Your task to perform on an android device: find which apps use the phone's location Image 0: 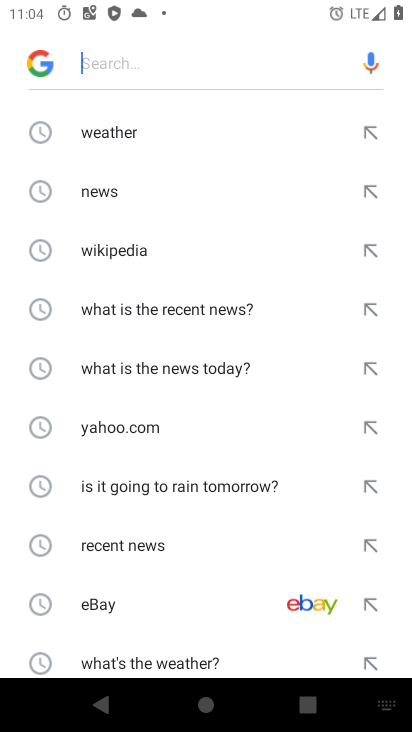
Step 0: press home button
Your task to perform on an android device: find which apps use the phone's location Image 1: 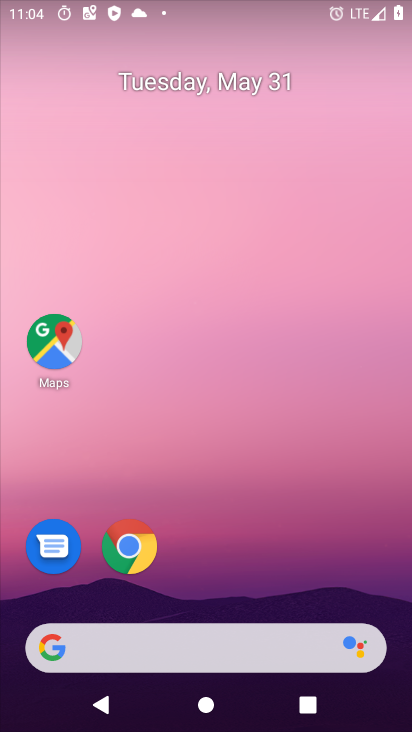
Step 1: drag from (250, 565) to (250, 184)
Your task to perform on an android device: find which apps use the phone's location Image 2: 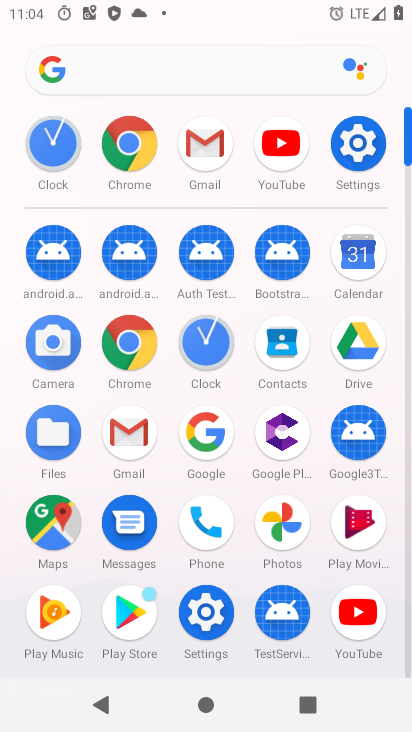
Step 2: click (357, 128)
Your task to perform on an android device: find which apps use the phone's location Image 3: 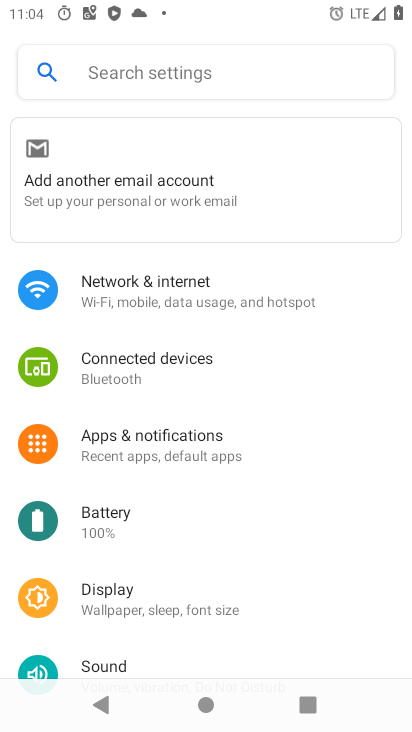
Step 3: press back button
Your task to perform on an android device: find which apps use the phone's location Image 4: 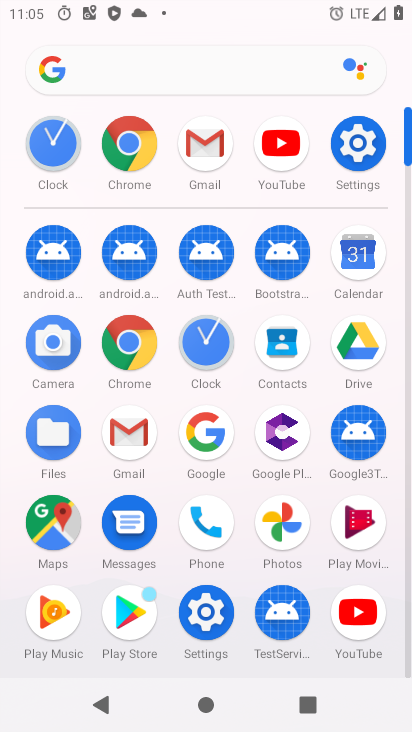
Step 4: click (119, 618)
Your task to perform on an android device: find which apps use the phone's location Image 5: 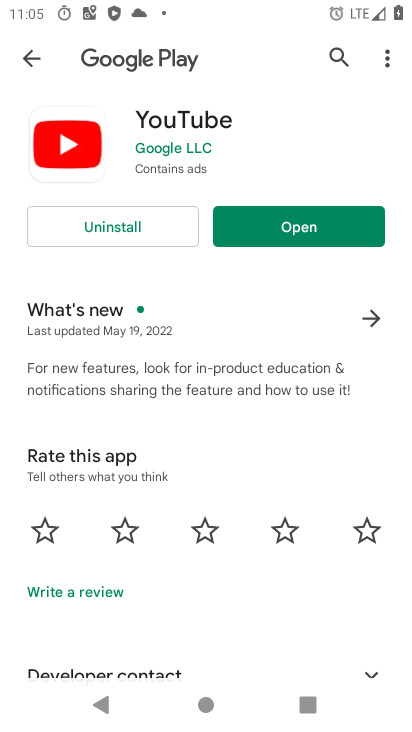
Step 5: press back button
Your task to perform on an android device: find which apps use the phone's location Image 6: 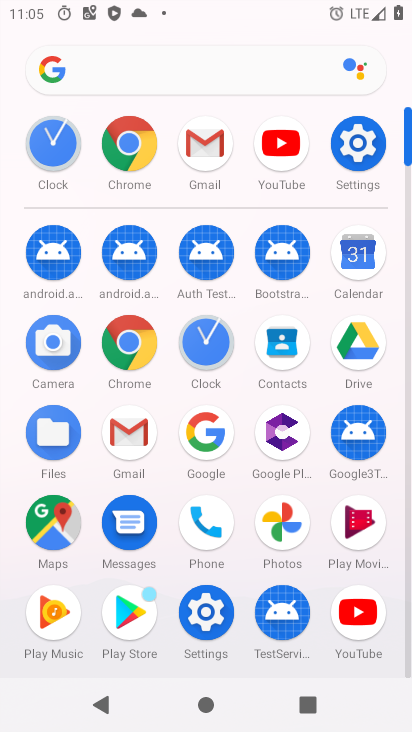
Step 6: click (134, 595)
Your task to perform on an android device: find which apps use the phone's location Image 7: 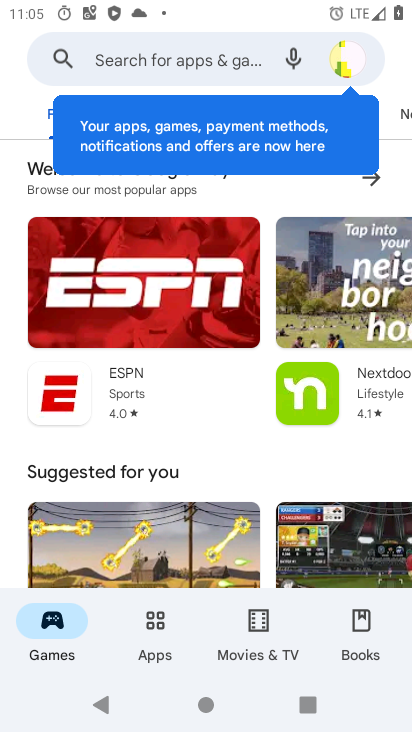
Step 7: click (212, 63)
Your task to perform on an android device: find which apps use the phone's location Image 8: 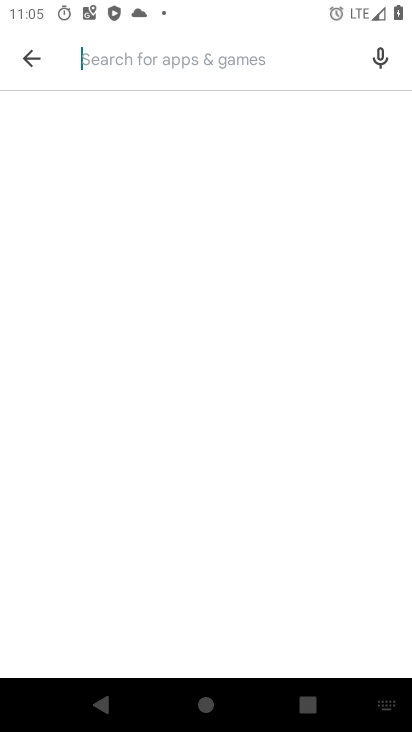
Step 8: type "app use the location"
Your task to perform on an android device: find which apps use the phone's location Image 9: 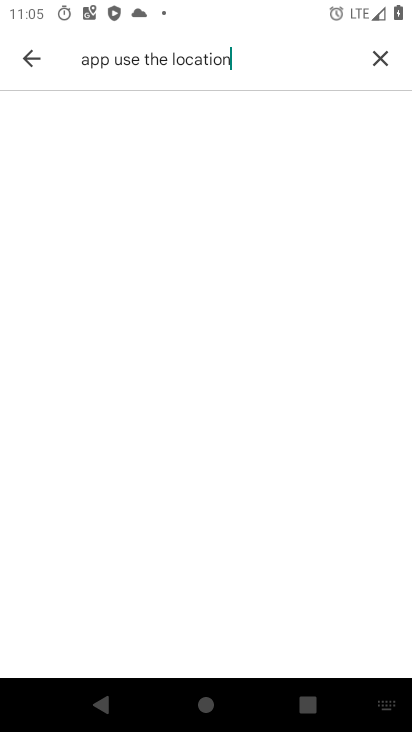
Step 9: task complete